Your task to perform on an android device: turn off javascript in the chrome app Image 0: 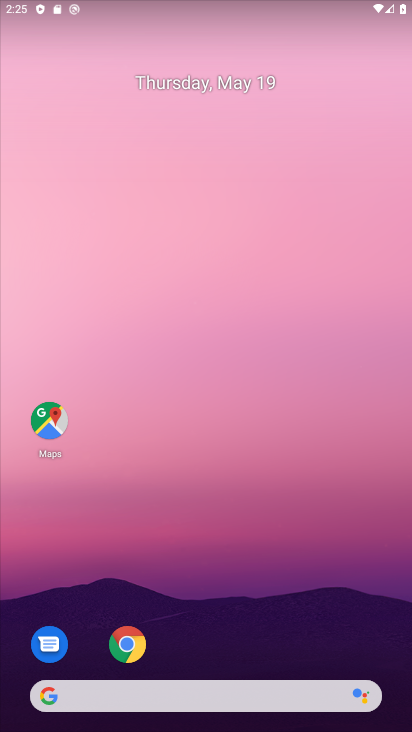
Step 0: click (122, 639)
Your task to perform on an android device: turn off javascript in the chrome app Image 1: 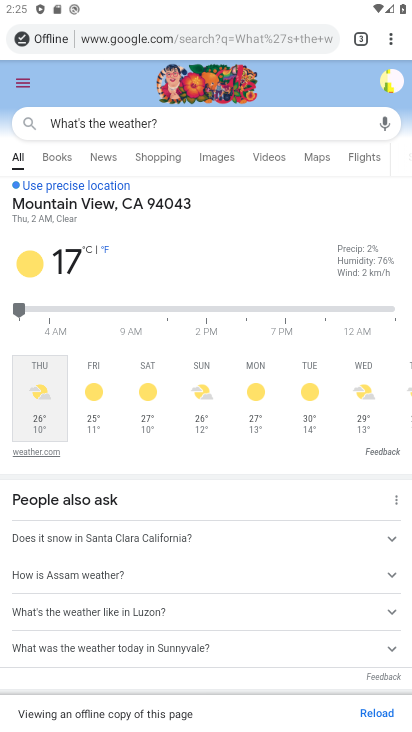
Step 1: click (388, 37)
Your task to perform on an android device: turn off javascript in the chrome app Image 2: 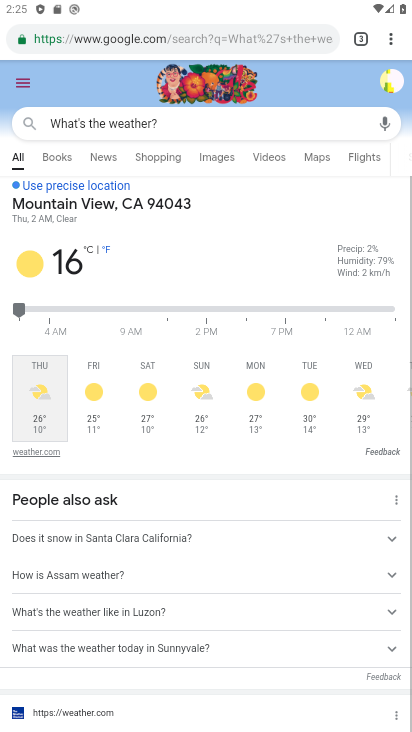
Step 2: click (387, 38)
Your task to perform on an android device: turn off javascript in the chrome app Image 3: 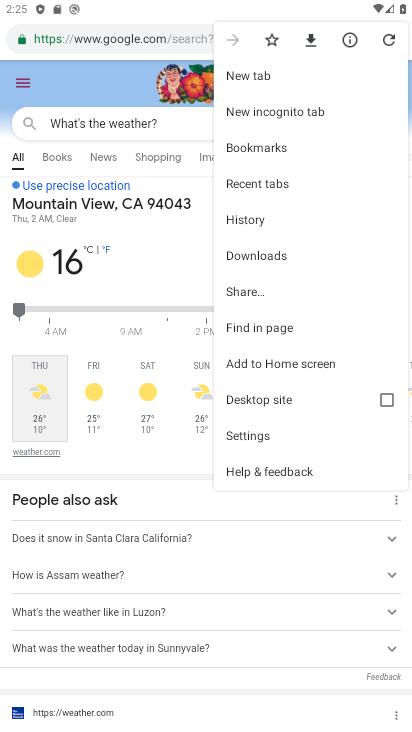
Step 3: click (264, 433)
Your task to perform on an android device: turn off javascript in the chrome app Image 4: 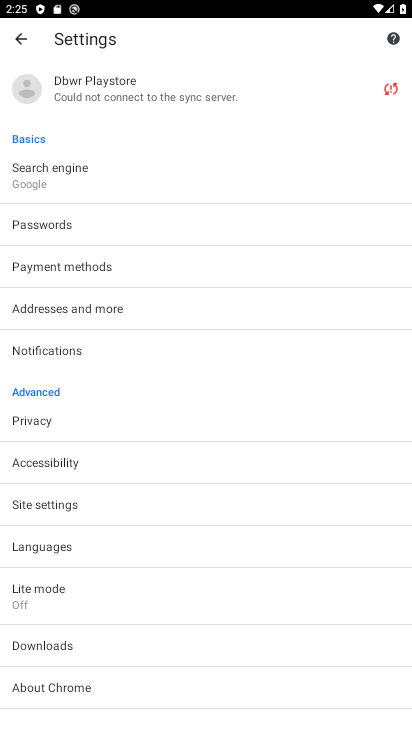
Step 4: click (67, 496)
Your task to perform on an android device: turn off javascript in the chrome app Image 5: 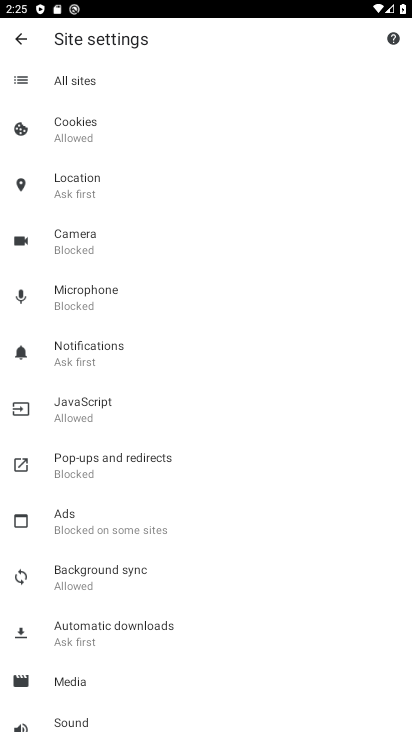
Step 5: click (99, 419)
Your task to perform on an android device: turn off javascript in the chrome app Image 6: 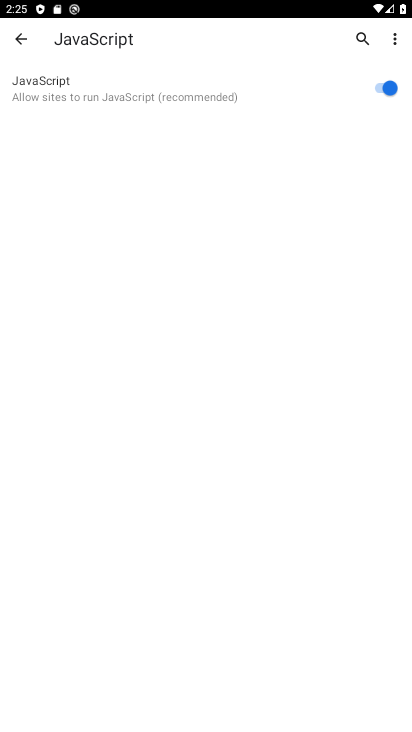
Step 6: click (378, 90)
Your task to perform on an android device: turn off javascript in the chrome app Image 7: 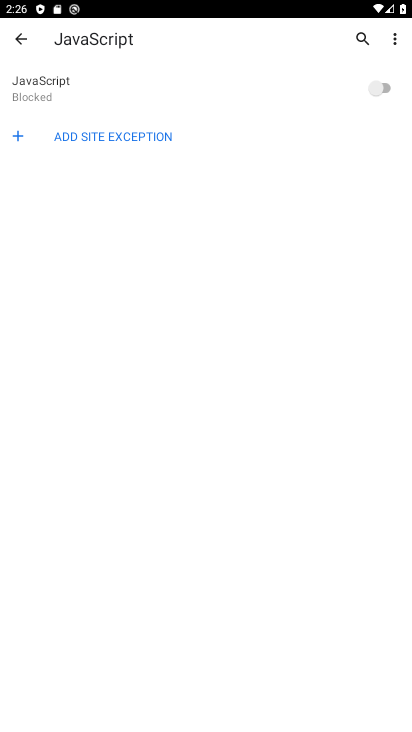
Step 7: task complete